Your task to perform on an android device: turn off smart reply in the gmail app Image 0: 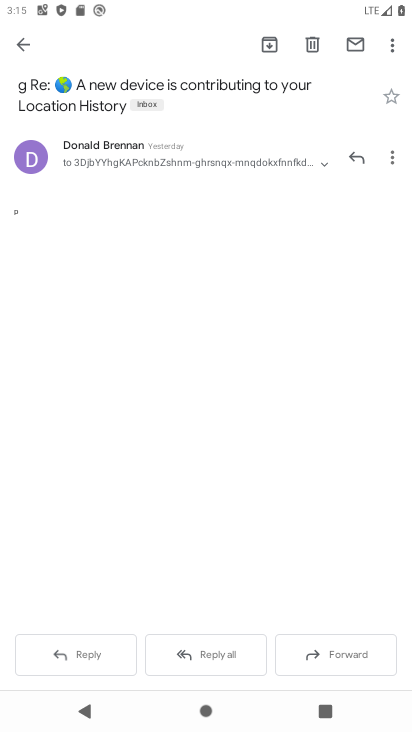
Step 0: click (39, 37)
Your task to perform on an android device: turn off smart reply in the gmail app Image 1: 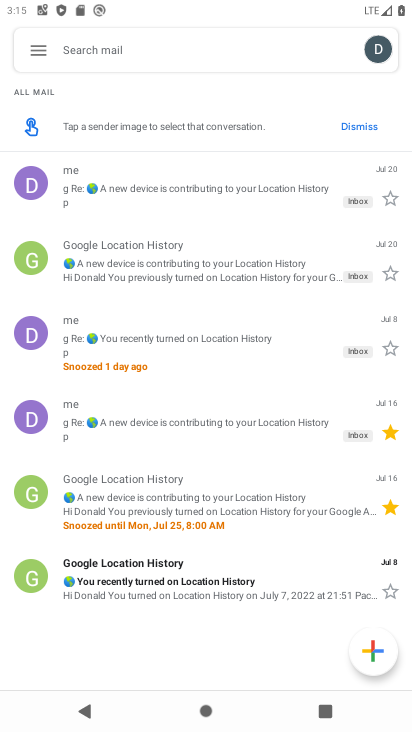
Step 1: click (32, 48)
Your task to perform on an android device: turn off smart reply in the gmail app Image 2: 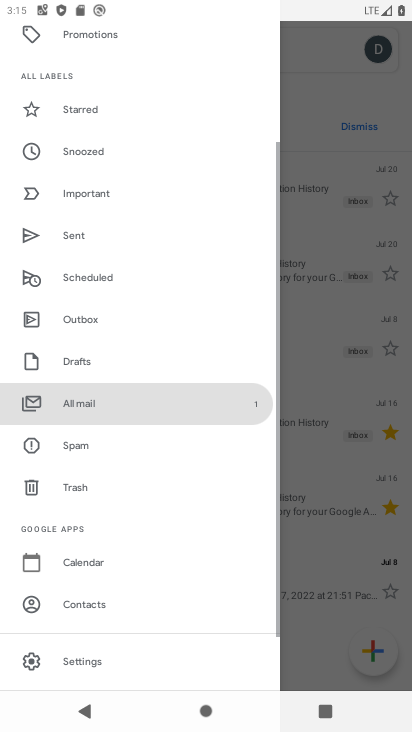
Step 2: click (131, 666)
Your task to perform on an android device: turn off smart reply in the gmail app Image 3: 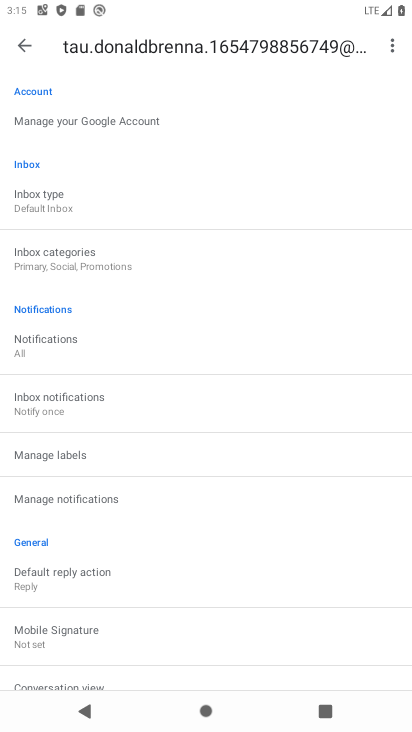
Step 3: drag from (220, 653) to (220, 275)
Your task to perform on an android device: turn off smart reply in the gmail app Image 4: 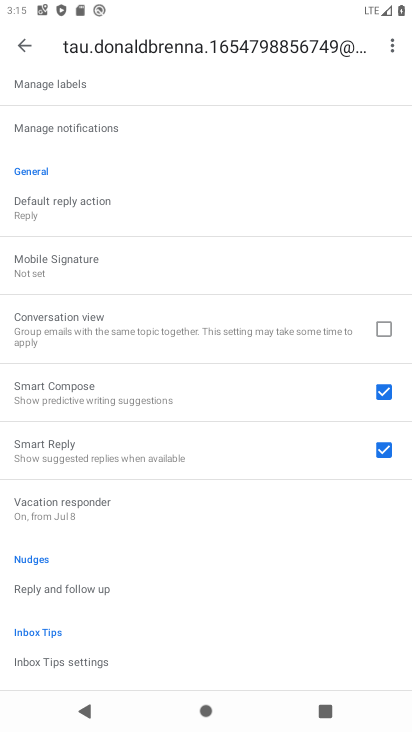
Step 4: click (372, 433)
Your task to perform on an android device: turn off smart reply in the gmail app Image 5: 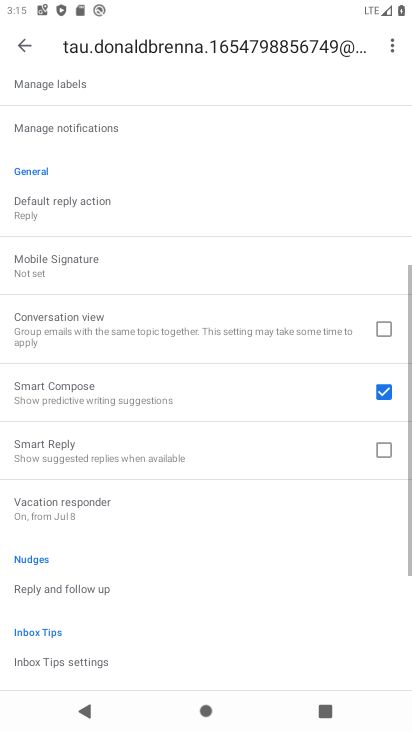
Step 5: task complete